Your task to perform on an android device: Open Chrome and go to the settings page Image 0: 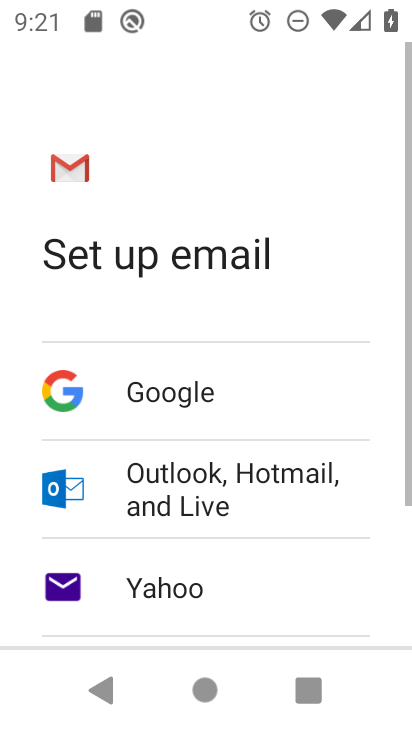
Step 0: press home button
Your task to perform on an android device: Open Chrome and go to the settings page Image 1: 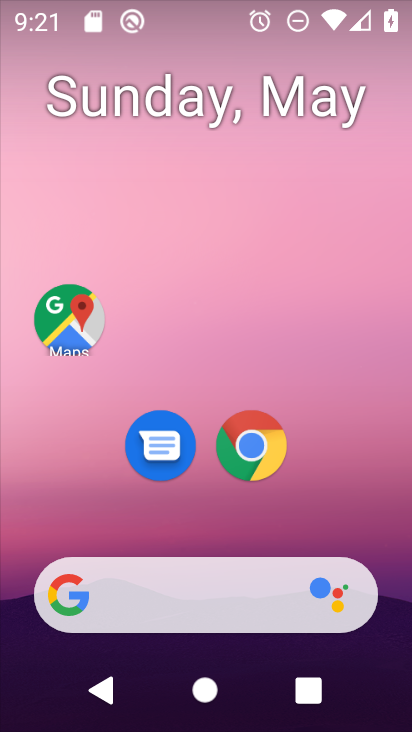
Step 1: drag from (276, 570) to (304, 365)
Your task to perform on an android device: Open Chrome and go to the settings page Image 2: 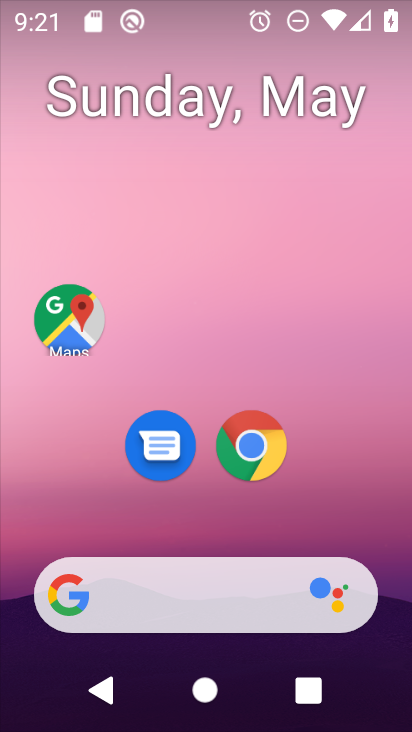
Step 2: drag from (211, 634) to (237, 410)
Your task to perform on an android device: Open Chrome and go to the settings page Image 3: 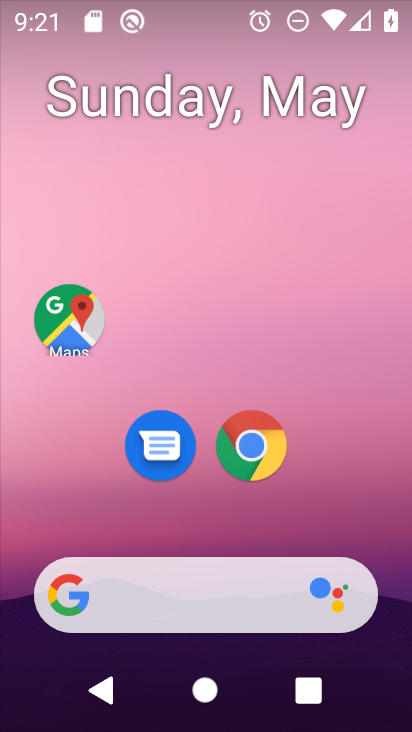
Step 3: click (250, 436)
Your task to perform on an android device: Open Chrome and go to the settings page Image 4: 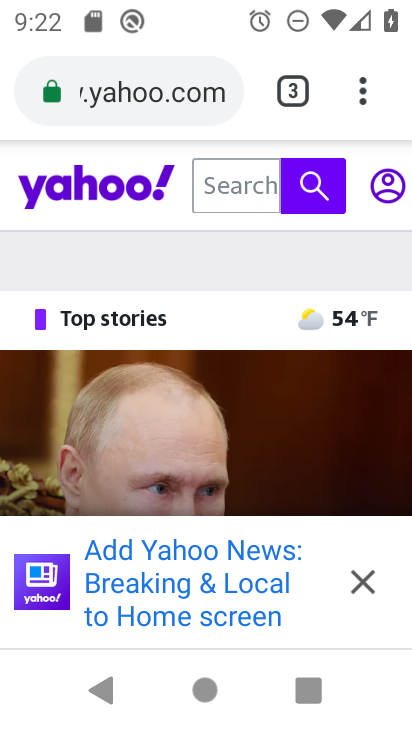
Step 4: click (374, 104)
Your task to perform on an android device: Open Chrome and go to the settings page Image 5: 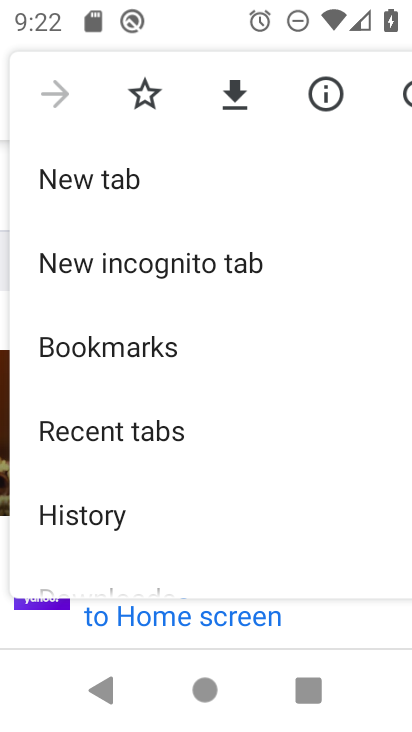
Step 5: drag from (240, 528) to (308, 212)
Your task to perform on an android device: Open Chrome and go to the settings page Image 6: 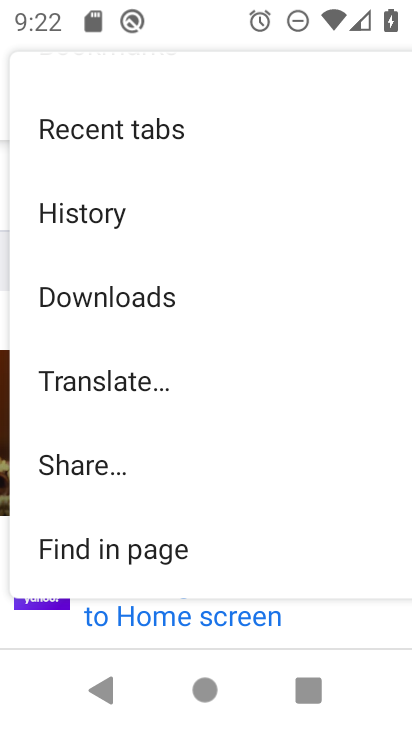
Step 6: drag from (222, 545) to (278, 327)
Your task to perform on an android device: Open Chrome and go to the settings page Image 7: 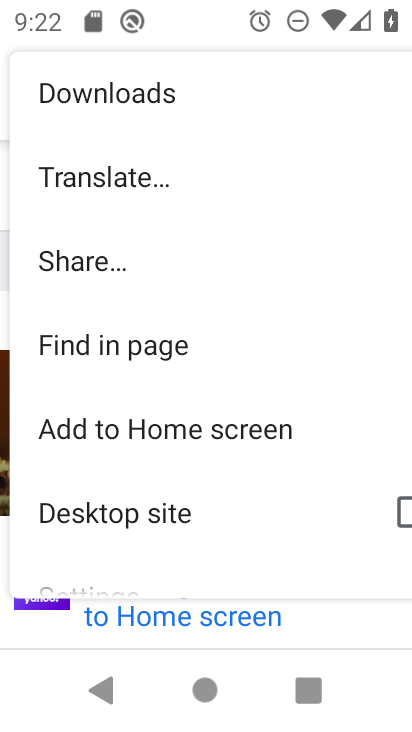
Step 7: drag from (240, 476) to (297, 294)
Your task to perform on an android device: Open Chrome and go to the settings page Image 8: 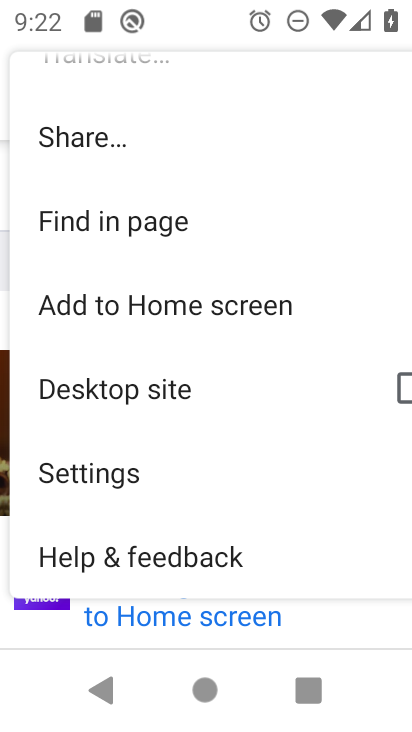
Step 8: click (186, 484)
Your task to perform on an android device: Open Chrome and go to the settings page Image 9: 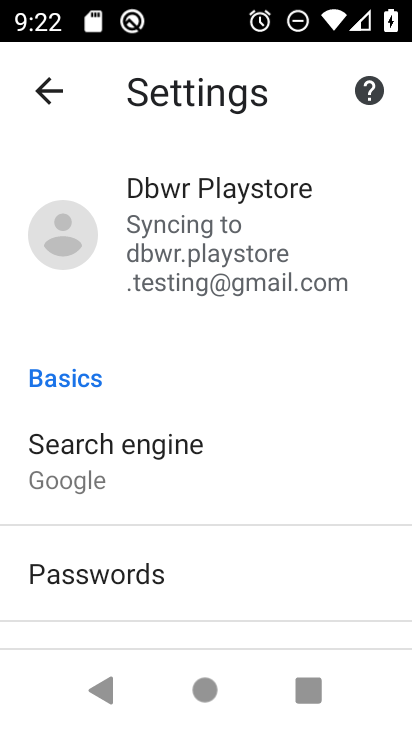
Step 9: task complete